Your task to perform on an android device: Open the web browser Image 0: 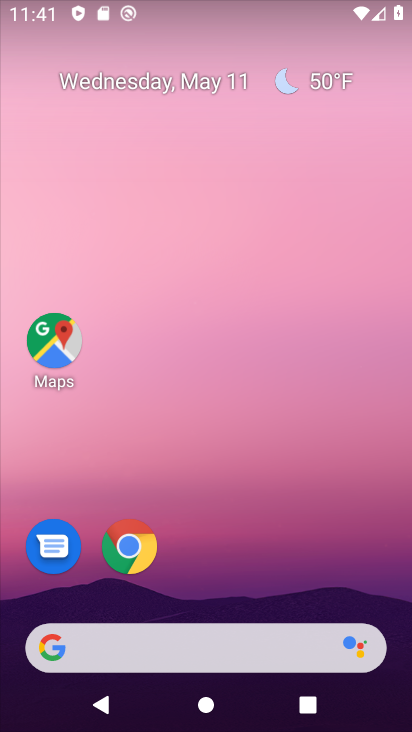
Step 0: click (126, 543)
Your task to perform on an android device: Open the web browser Image 1: 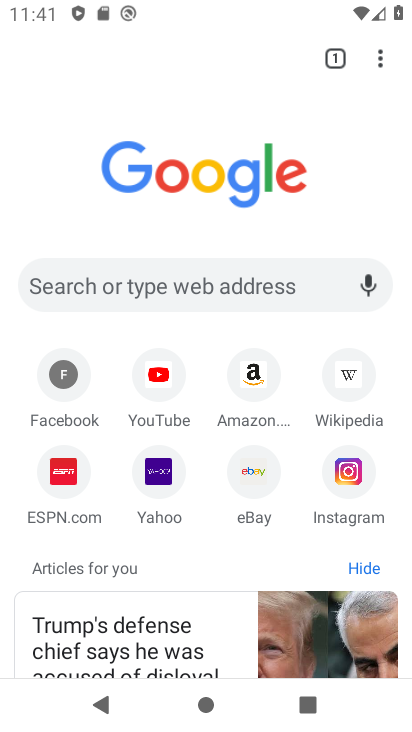
Step 1: task complete